Your task to perform on an android device: Install the Facebook app Image 0: 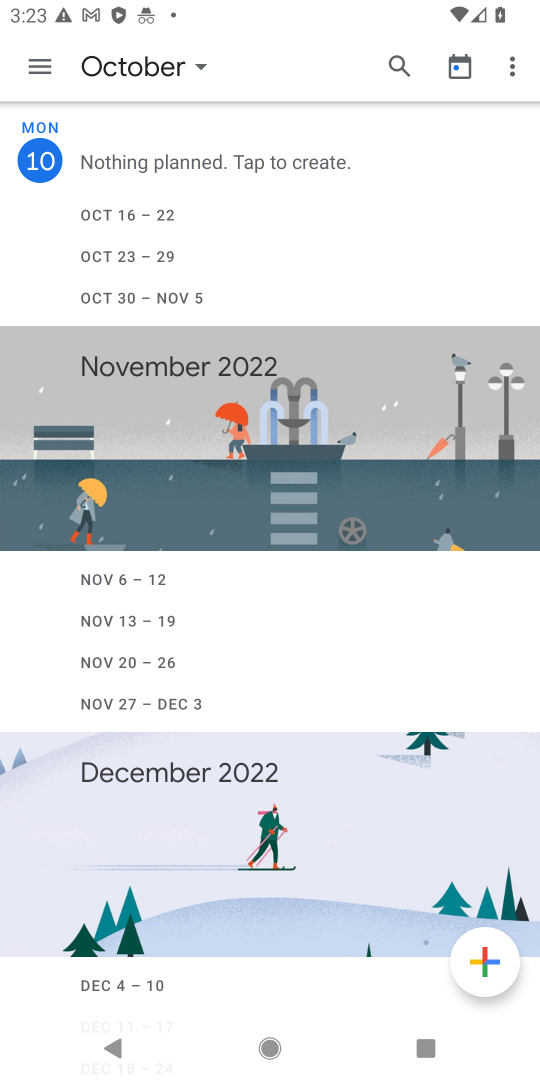
Step 0: press home button
Your task to perform on an android device: Install the Facebook app Image 1: 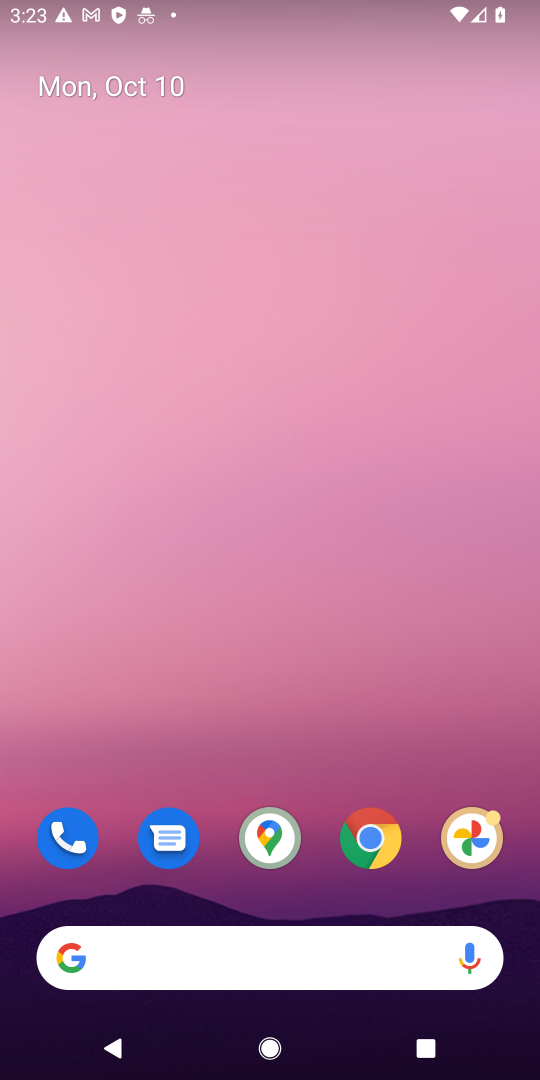
Step 1: drag from (307, 907) to (301, 352)
Your task to perform on an android device: Install the Facebook app Image 2: 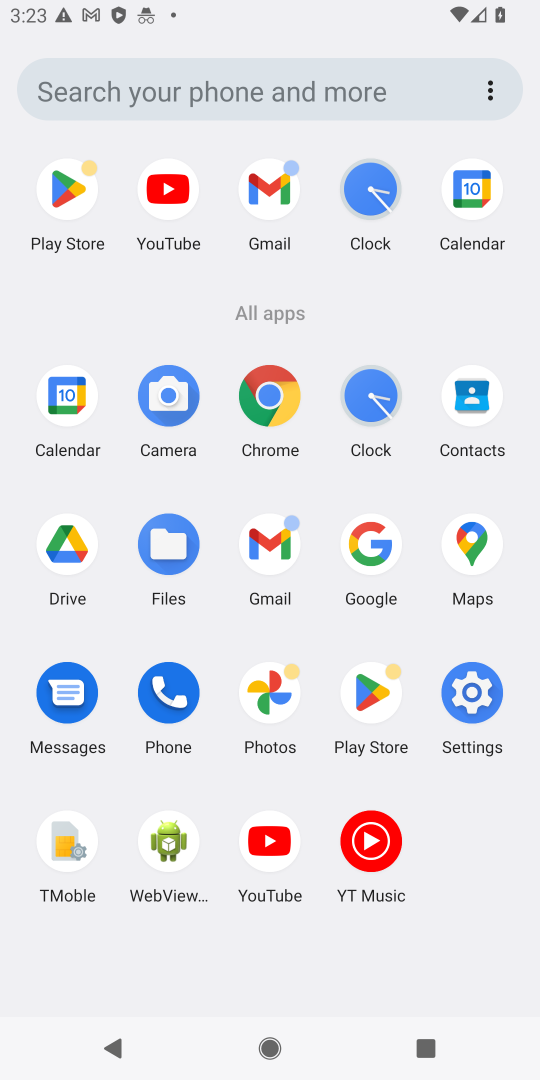
Step 2: click (355, 725)
Your task to perform on an android device: Install the Facebook app Image 3: 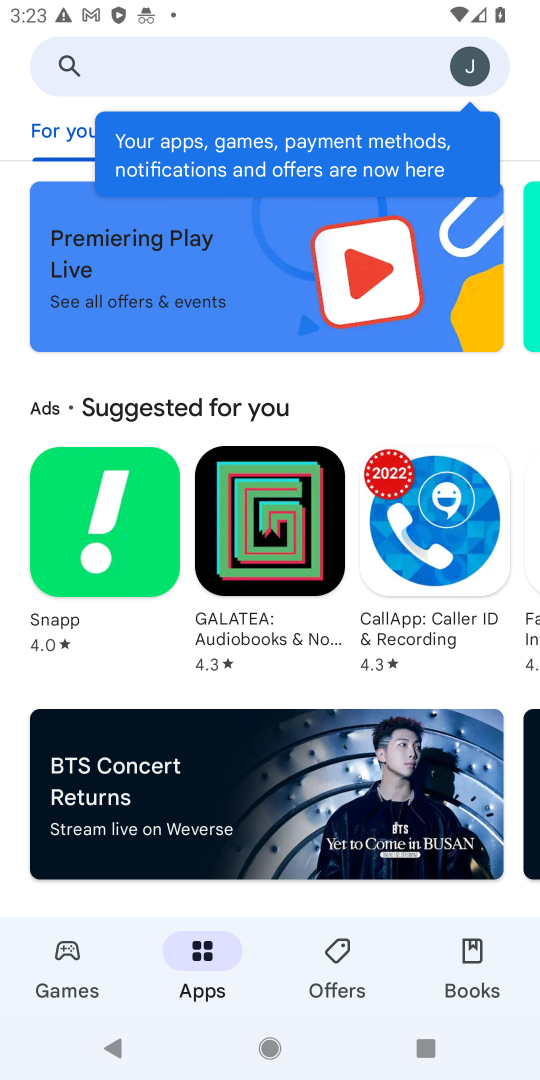
Step 3: click (252, 62)
Your task to perform on an android device: Install the Facebook app Image 4: 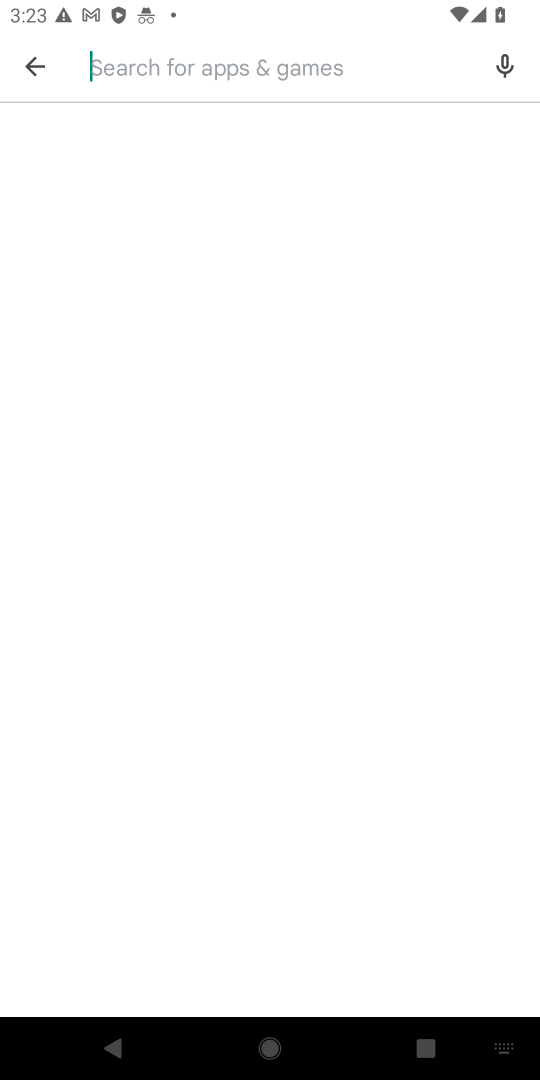
Step 4: type "facebook"
Your task to perform on an android device: Install the Facebook app Image 5: 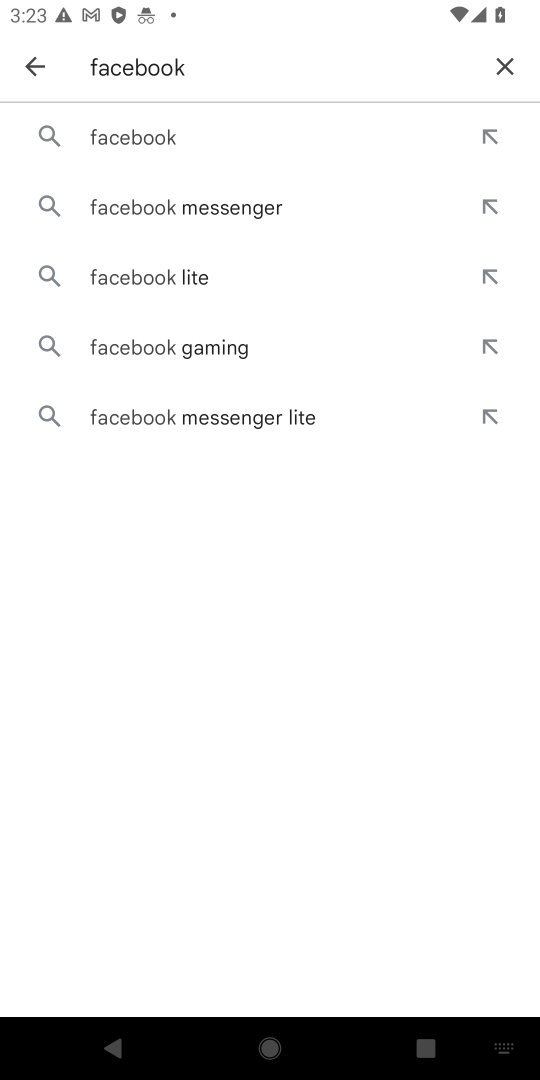
Step 5: click (162, 121)
Your task to perform on an android device: Install the Facebook app Image 6: 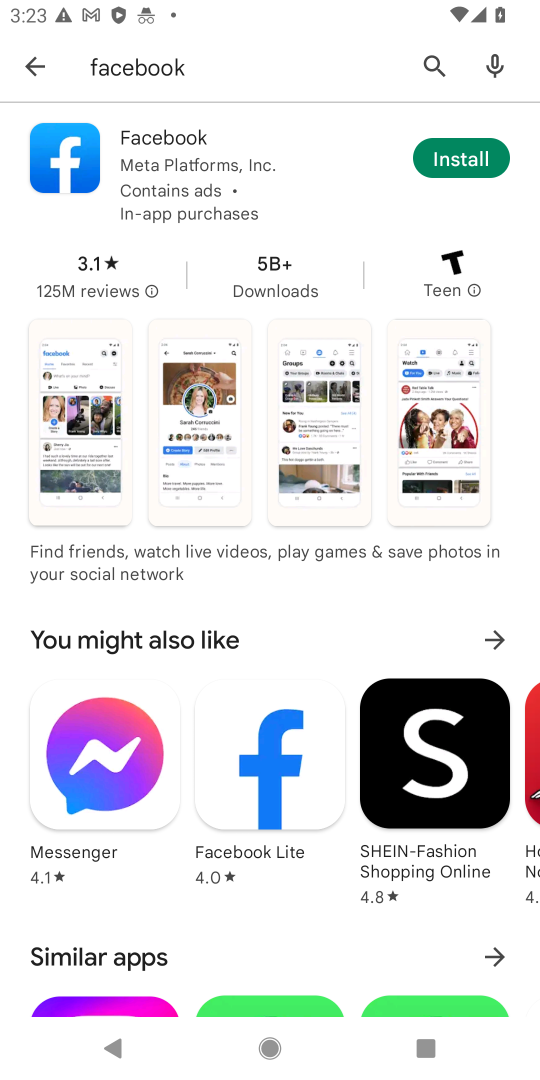
Step 6: click (461, 160)
Your task to perform on an android device: Install the Facebook app Image 7: 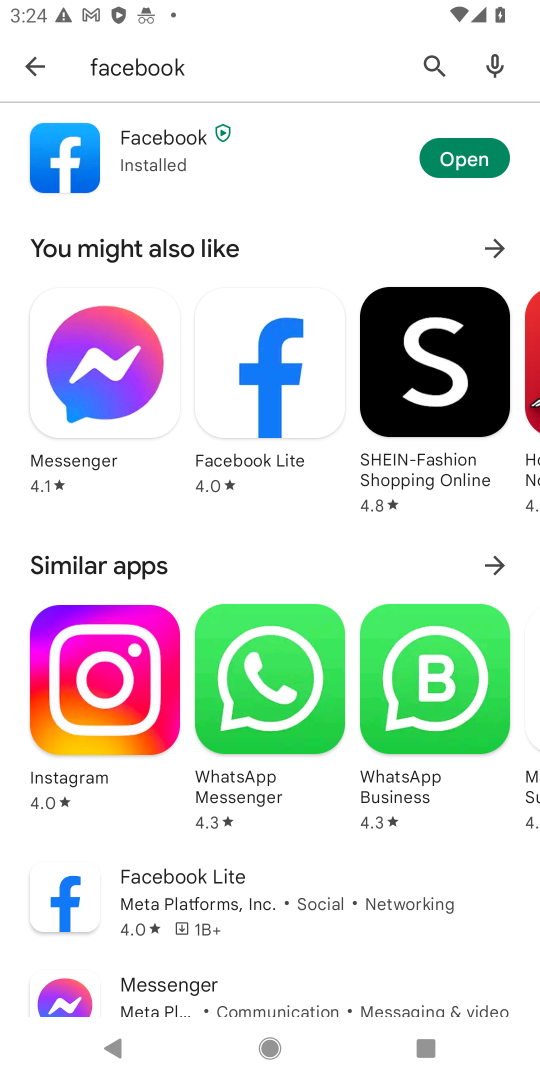
Step 7: task complete